Your task to perform on an android device: Open Youtube and go to the subscriptions tab Image 0: 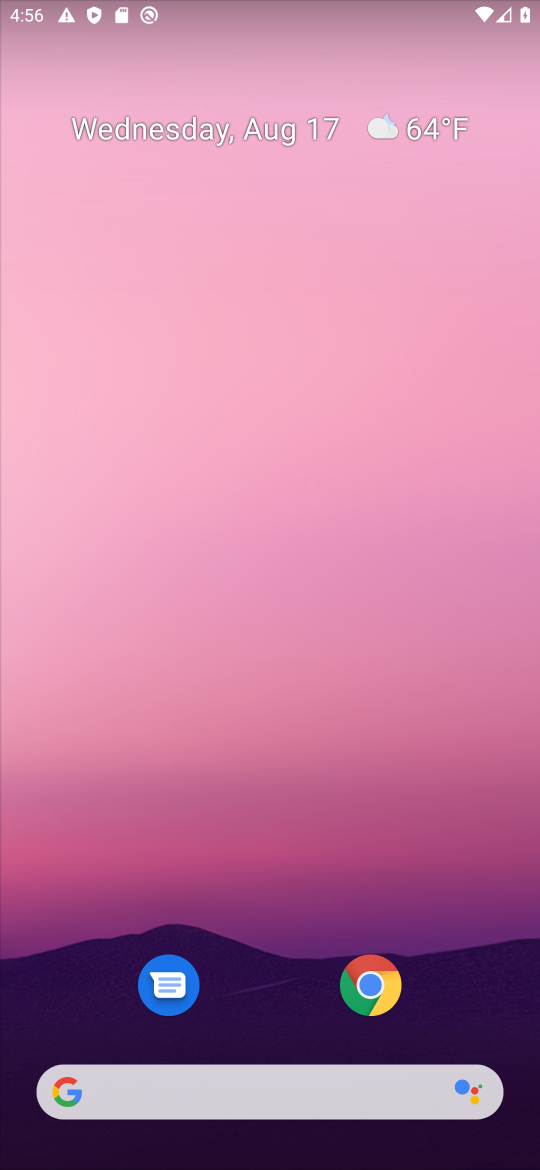
Step 0: drag from (246, 1087) to (269, 230)
Your task to perform on an android device: Open Youtube and go to the subscriptions tab Image 1: 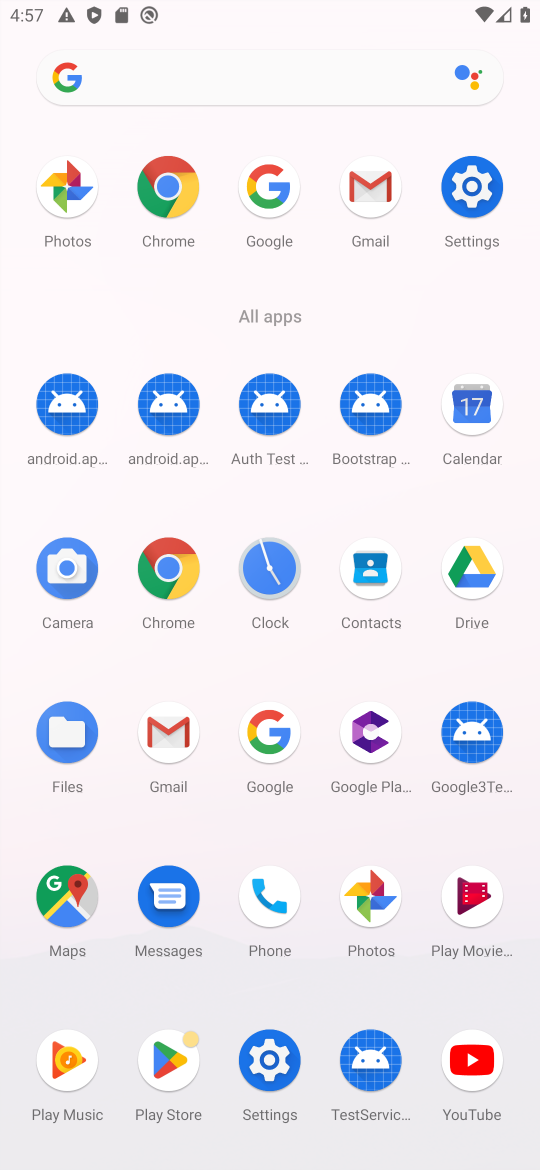
Step 1: click (476, 1060)
Your task to perform on an android device: Open Youtube and go to the subscriptions tab Image 2: 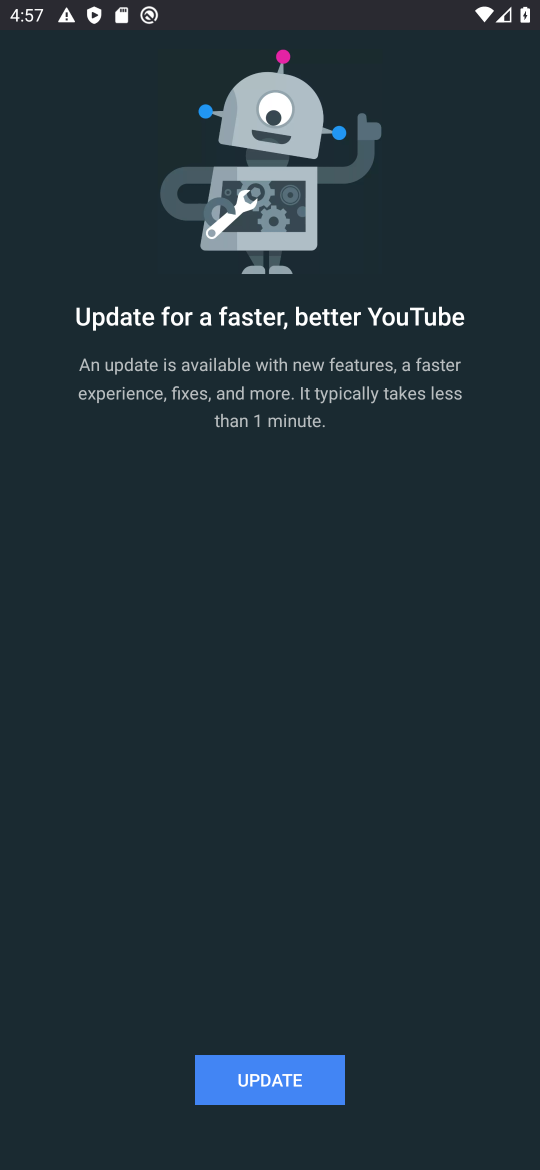
Step 2: click (275, 1089)
Your task to perform on an android device: Open Youtube and go to the subscriptions tab Image 3: 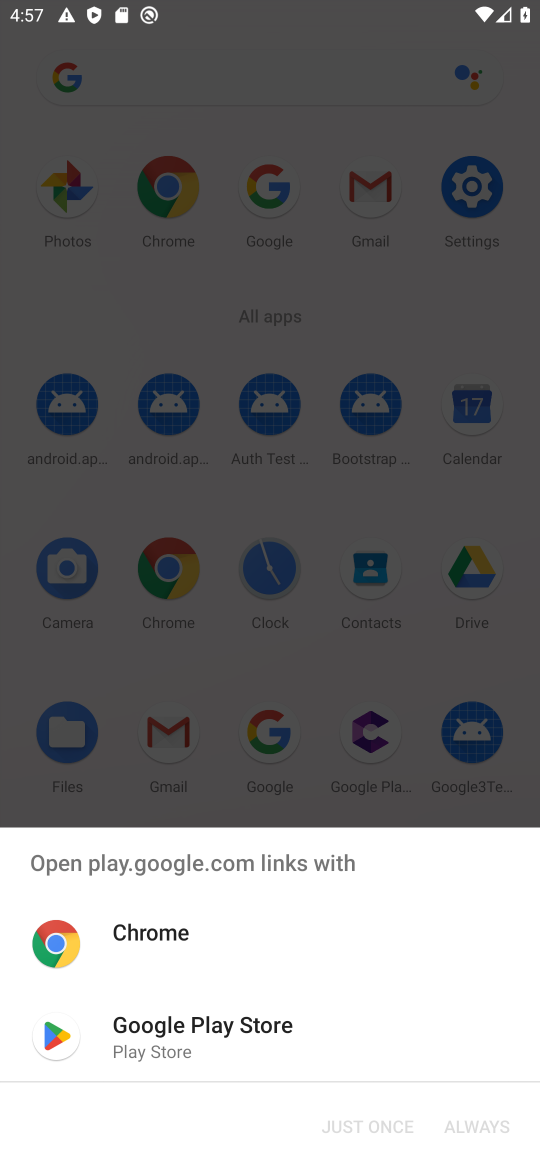
Step 3: click (210, 1028)
Your task to perform on an android device: Open Youtube and go to the subscriptions tab Image 4: 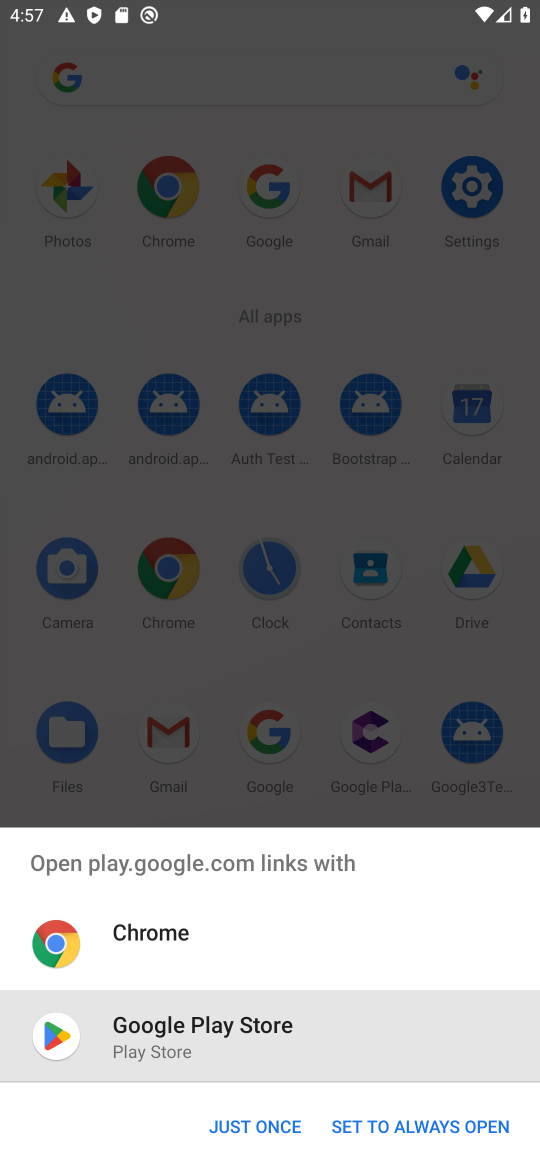
Step 4: click (246, 1123)
Your task to perform on an android device: Open Youtube and go to the subscriptions tab Image 5: 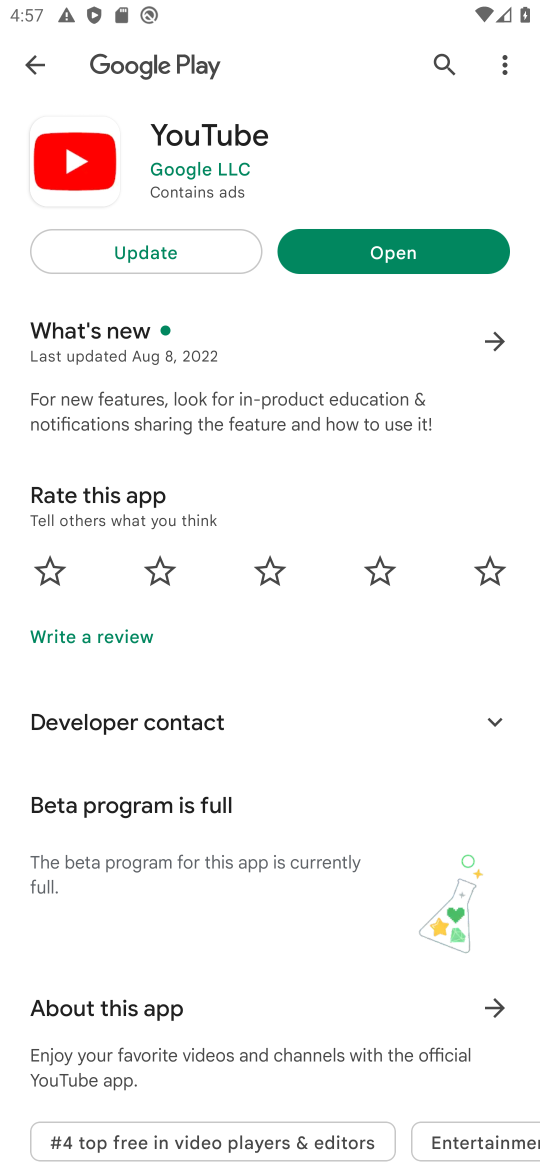
Step 5: click (172, 249)
Your task to perform on an android device: Open Youtube and go to the subscriptions tab Image 6: 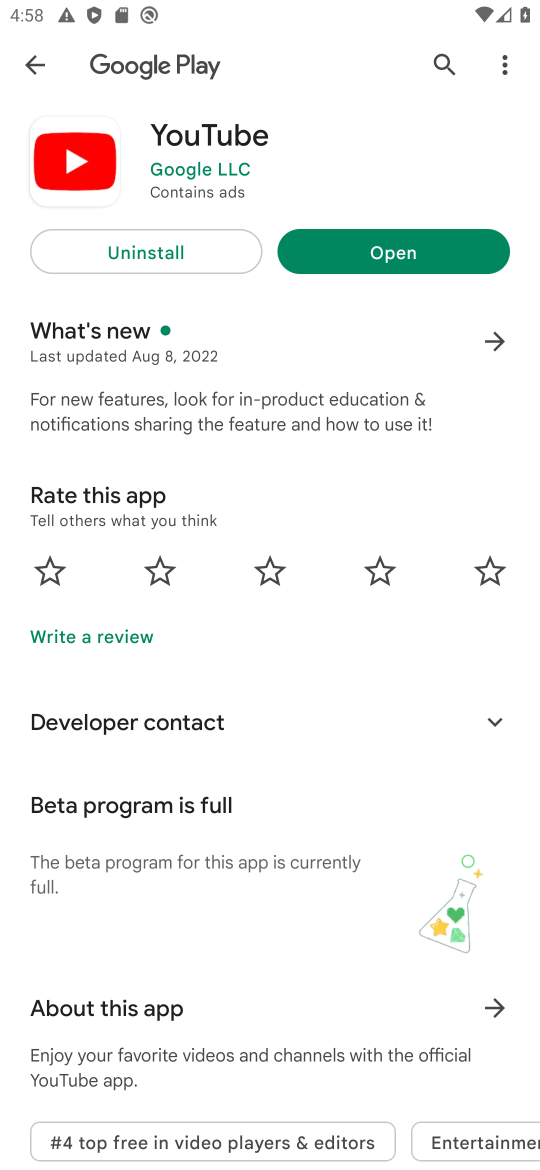
Step 6: click (407, 259)
Your task to perform on an android device: Open Youtube and go to the subscriptions tab Image 7: 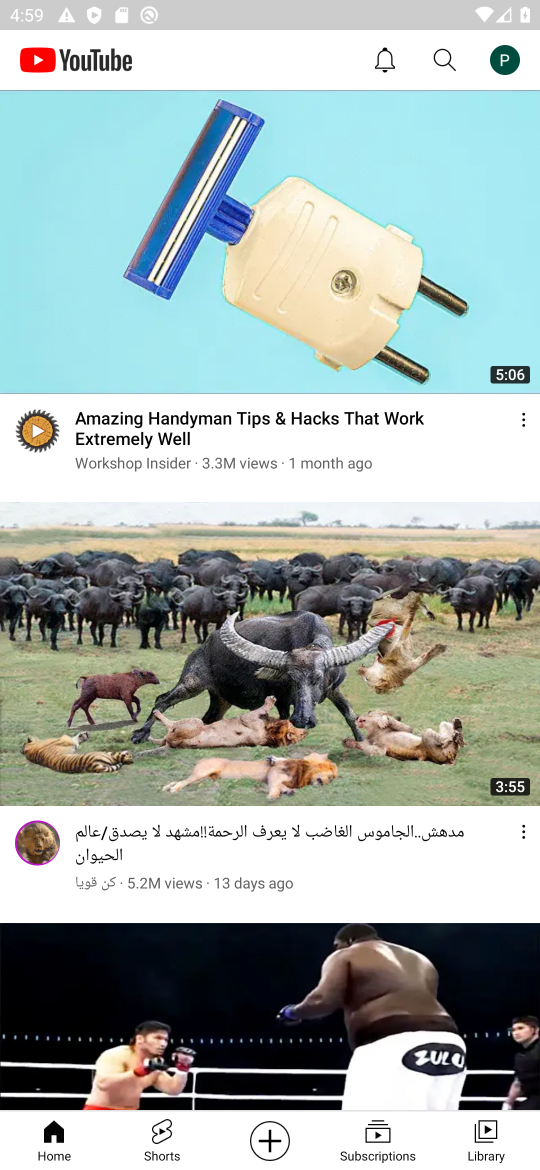
Step 7: click (378, 1136)
Your task to perform on an android device: Open Youtube and go to the subscriptions tab Image 8: 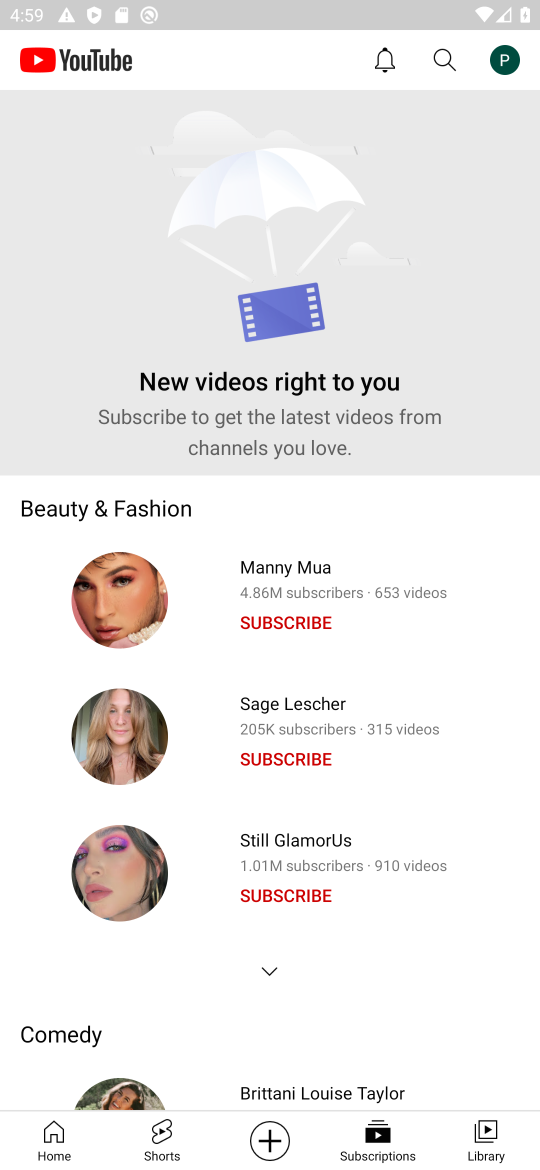
Step 8: task complete